Your task to perform on an android device: Go to Reddit.com Image 0: 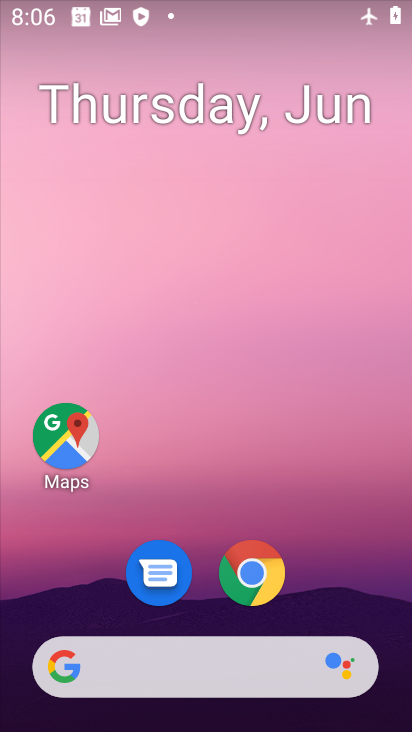
Step 0: drag from (343, 587) to (318, 311)
Your task to perform on an android device: Go to Reddit.com Image 1: 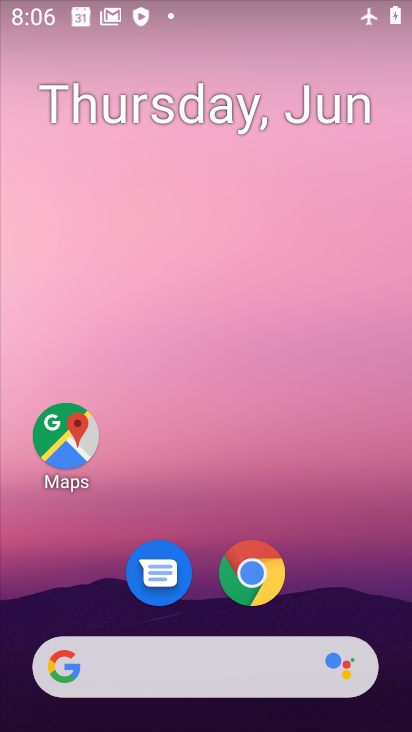
Step 1: click (243, 564)
Your task to perform on an android device: Go to Reddit.com Image 2: 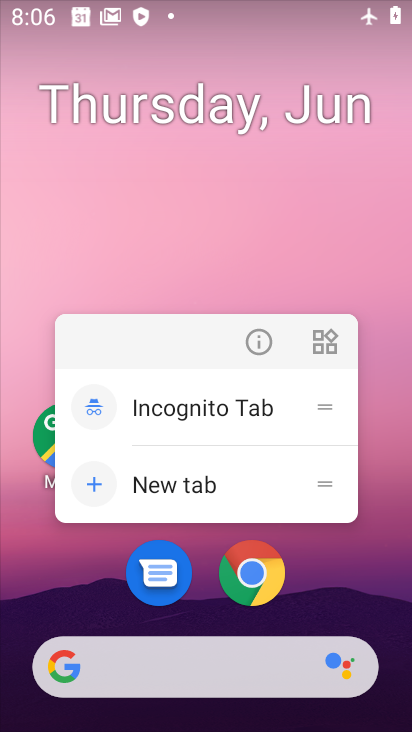
Step 2: click (257, 562)
Your task to perform on an android device: Go to Reddit.com Image 3: 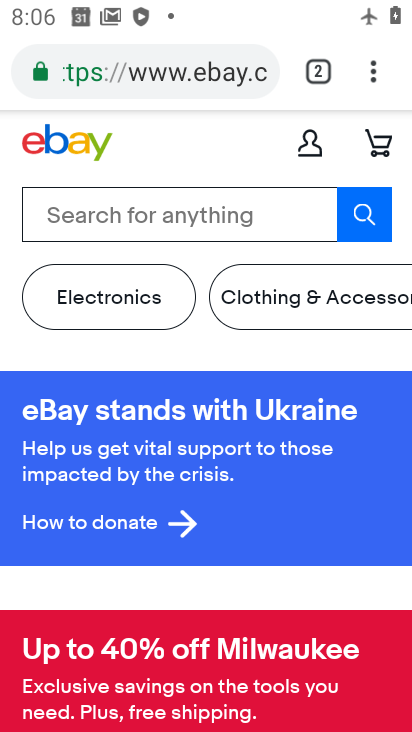
Step 3: click (360, 66)
Your task to perform on an android device: Go to Reddit.com Image 4: 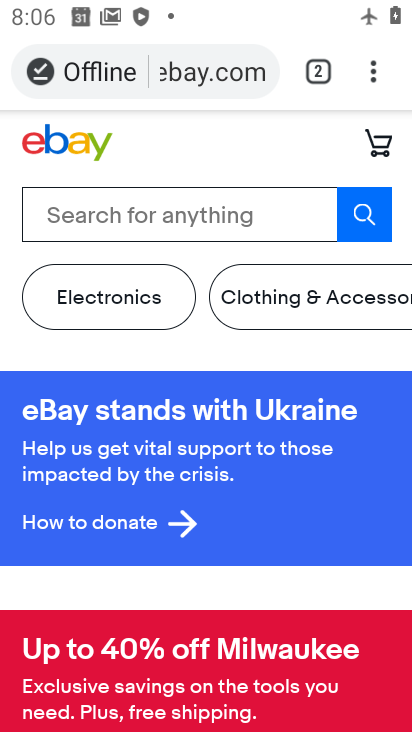
Step 4: click (381, 60)
Your task to perform on an android device: Go to Reddit.com Image 5: 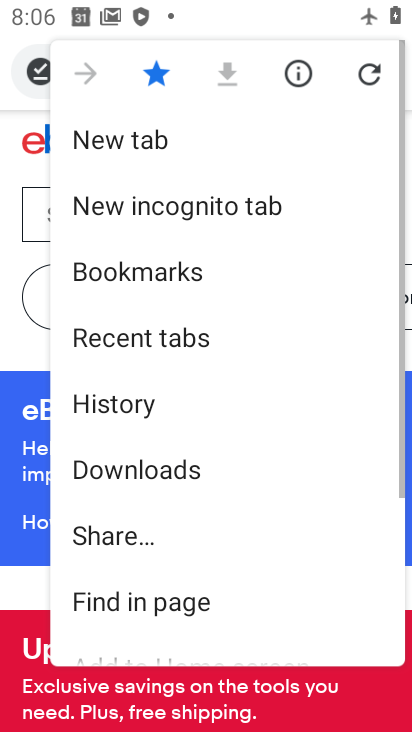
Step 5: click (118, 128)
Your task to perform on an android device: Go to Reddit.com Image 6: 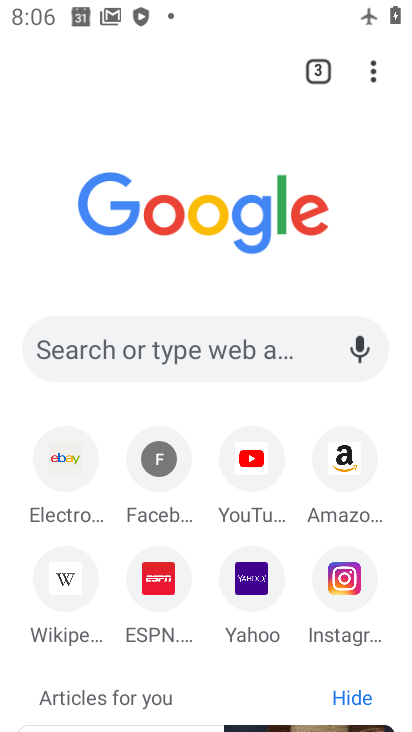
Step 6: click (209, 331)
Your task to perform on an android device: Go to Reddit.com Image 7: 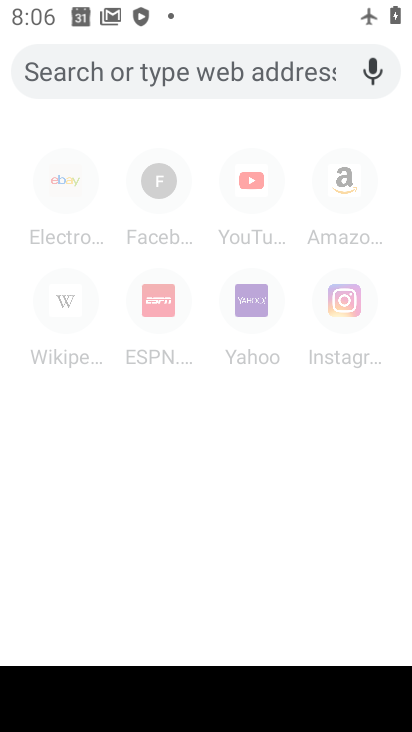
Step 7: type " Reddit.com"
Your task to perform on an android device: Go to Reddit.com Image 8: 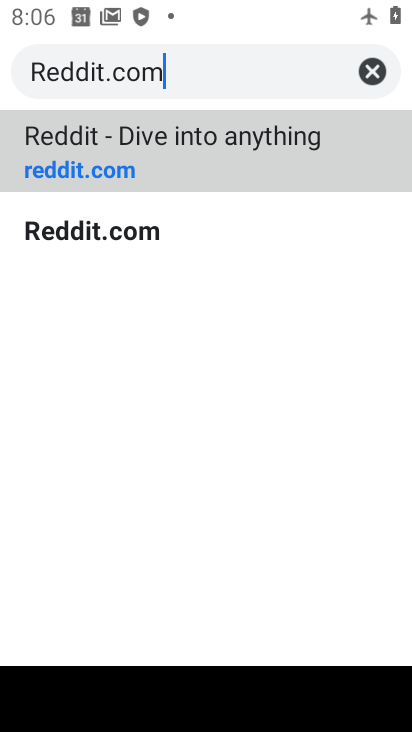
Step 8: click (125, 157)
Your task to perform on an android device: Go to Reddit.com Image 9: 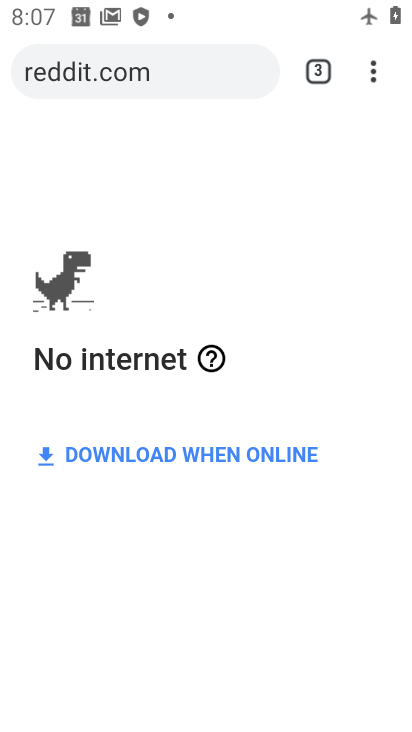
Step 9: task complete